Your task to perform on an android device: toggle airplane mode Image 0: 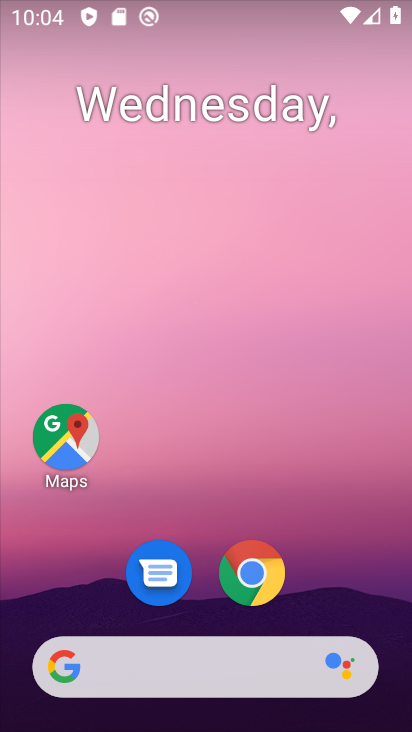
Step 0: drag from (385, 334) to (381, 183)
Your task to perform on an android device: toggle airplane mode Image 1: 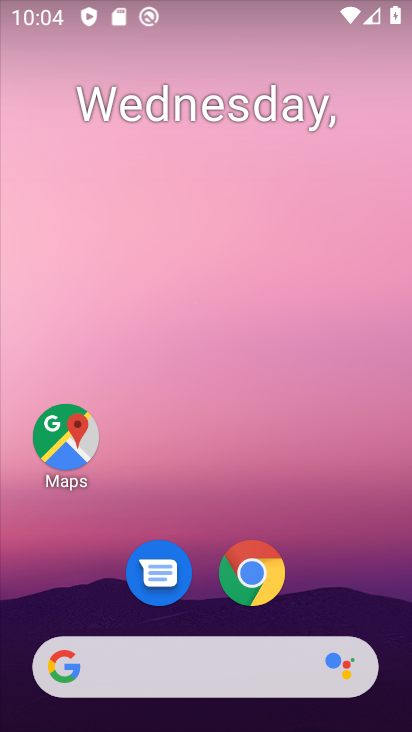
Step 1: drag from (375, 599) to (365, 17)
Your task to perform on an android device: toggle airplane mode Image 2: 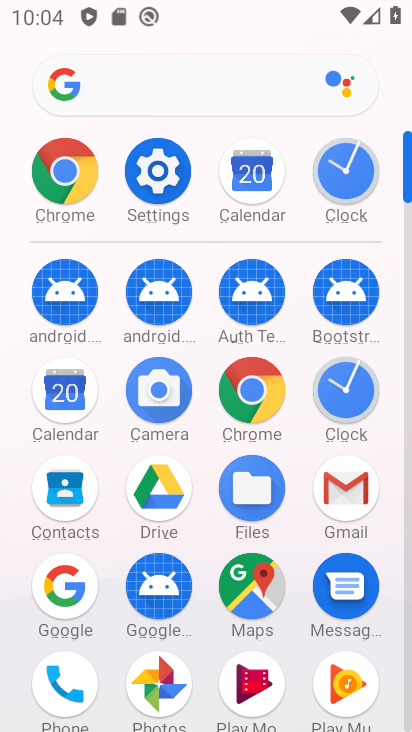
Step 2: click (156, 174)
Your task to perform on an android device: toggle airplane mode Image 3: 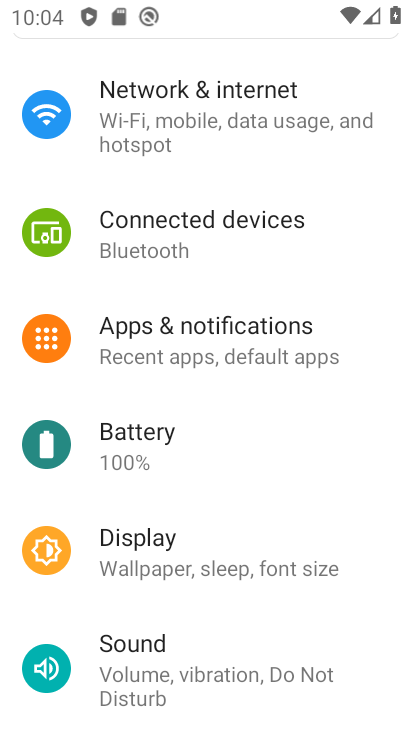
Step 3: click (144, 114)
Your task to perform on an android device: toggle airplane mode Image 4: 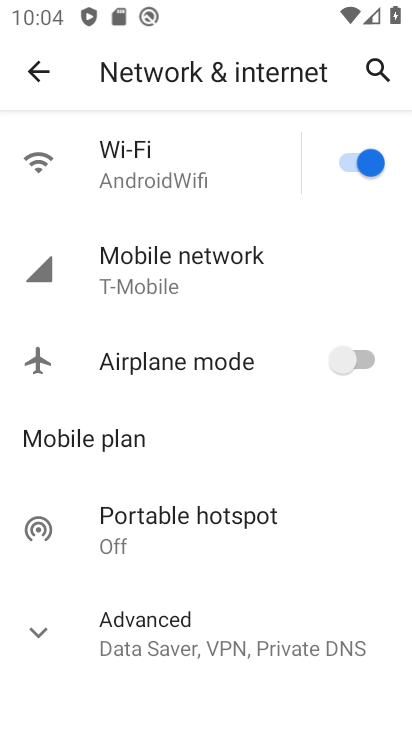
Step 4: click (362, 361)
Your task to perform on an android device: toggle airplane mode Image 5: 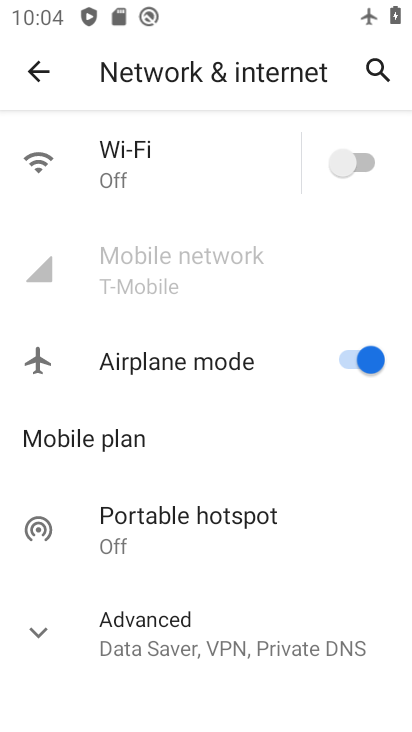
Step 5: task complete